Your task to perform on an android device: Go to accessibility settings Image 0: 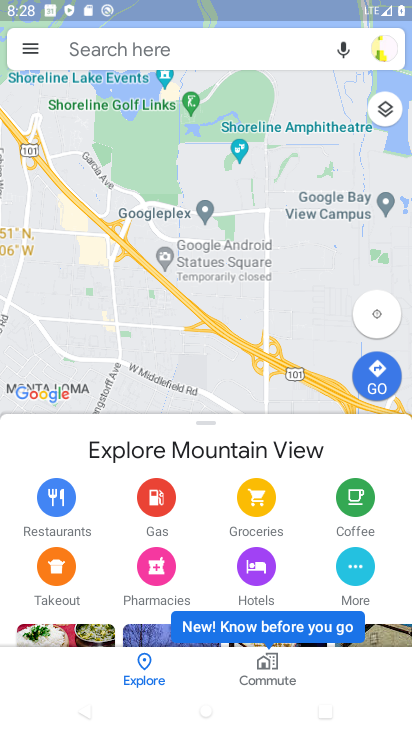
Step 0: press home button
Your task to perform on an android device: Go to accessibility settings Image 1: 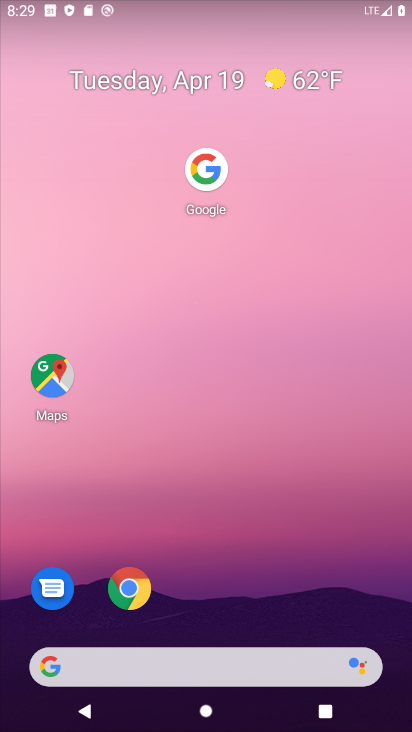
Step 1: drag from (277, 524) to (348, 16)
Your task to perform on an android device: Go to accessibility settings Image 2: 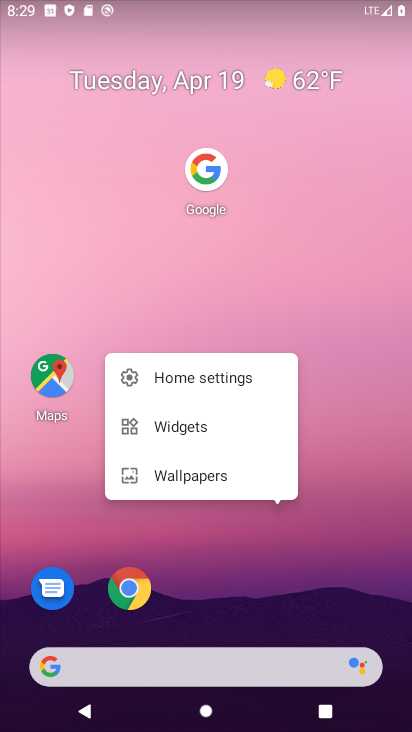
Step 2: click (332, 309)
Your task to perform on an android device: Go to accessibility settings Image 3: 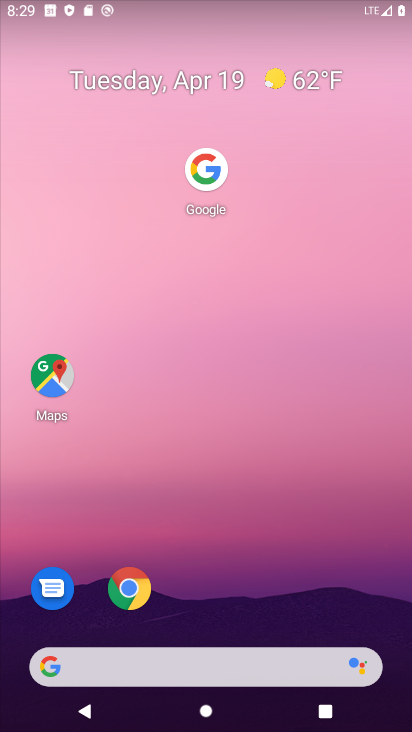
Step 3: drag from (266, 595) to (293, 23)
Your task to perform on an android device: Go to accessibility settings Image 4: 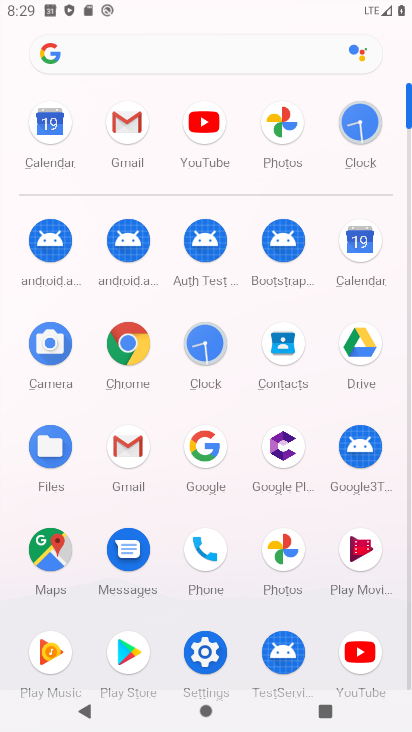
Step 4: click (204, 652)
Your task to perform on an android device: Go to accessibility settings Image 5: 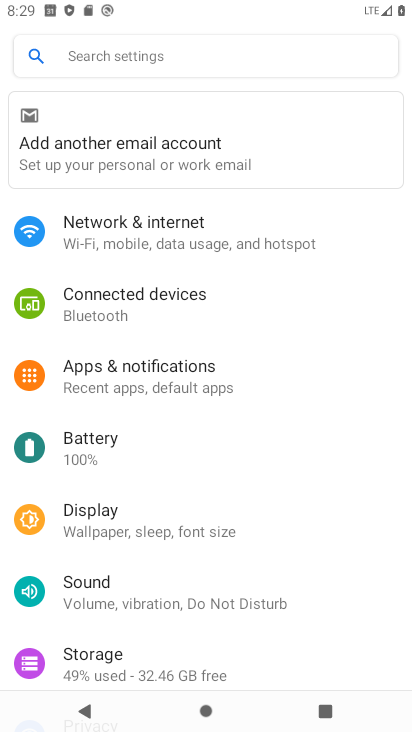
Step 5: drag from (195, 577) to (202, 104)
Your task to perform on an android device: Go to accessibility settings Image 6: 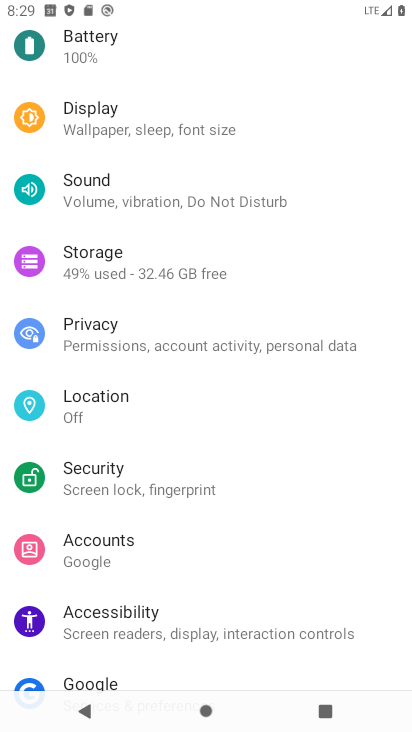
Step 6: click (122, 610)
Your task to perform on an android device: Go to accessibility settings Image 7: 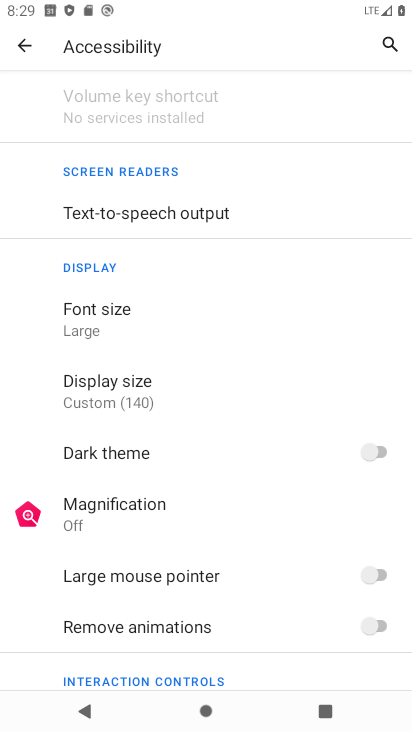
Step 7: task complete